Your task to perform on an android device: change notifications settings Image 0: 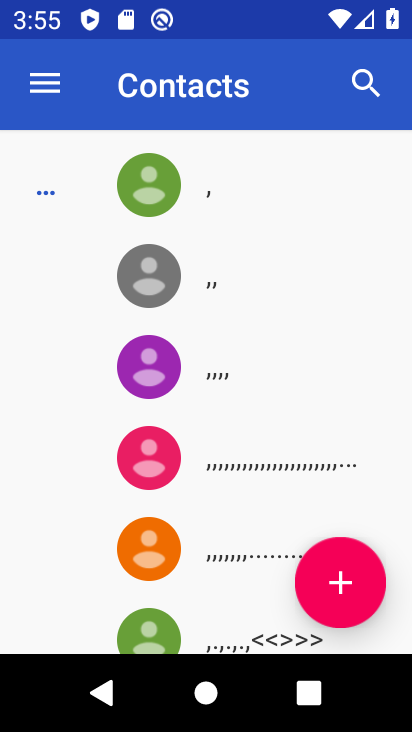
Step 0: press home button
Your task to perform on an android device: change notifications settings Image 1: 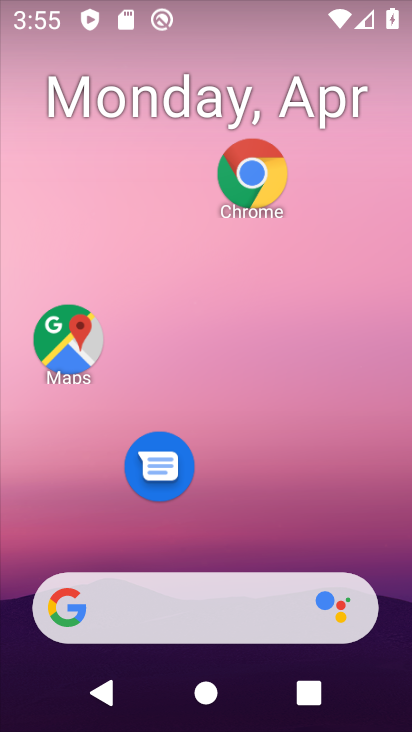
Step 1: drag from (397, 552) to (337, 63)
Your task to perform on an android device: change notifications settings Image 2: 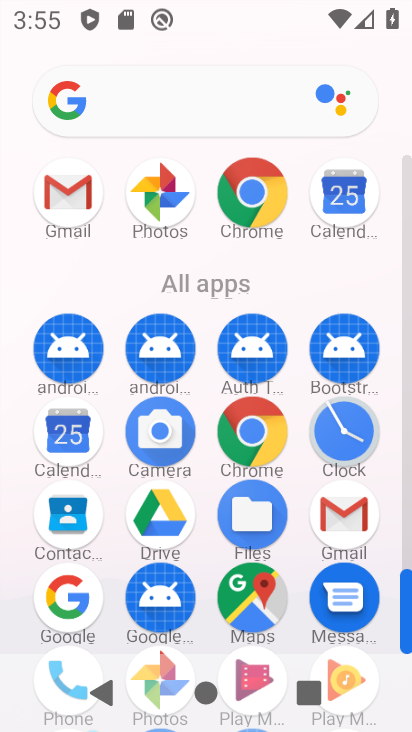
Step 2: drag from (389, 566) to (376, 398)
Your task to perform on an android device: change notifications settings Image 3: 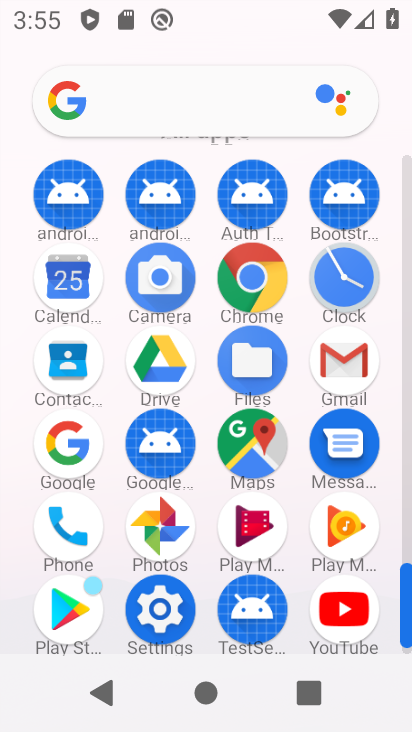
Step 3: click (172, 590)
Your task to perform on an android device: change notifications settings Image 4: 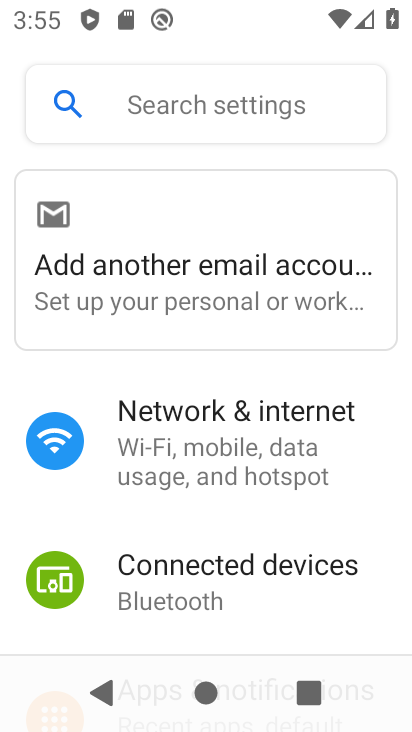
Step 4: drag from (328, 614) to (277, 302)
Your task to perform on an android device: change notifications settings Image 5: 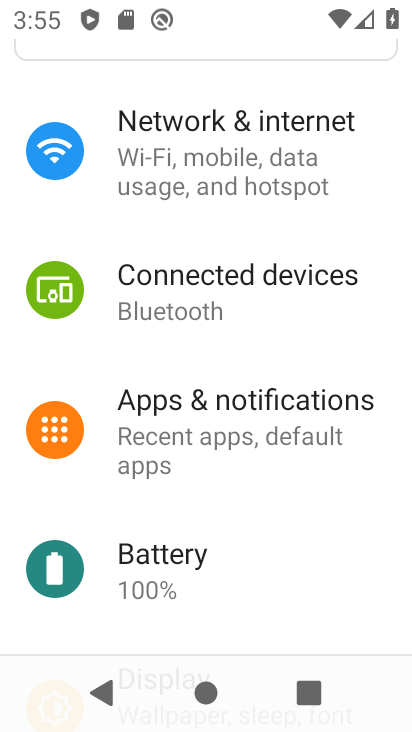
Step 5: click (297, 395)
Your task to perform on an android device: change notifications settings Image 6: 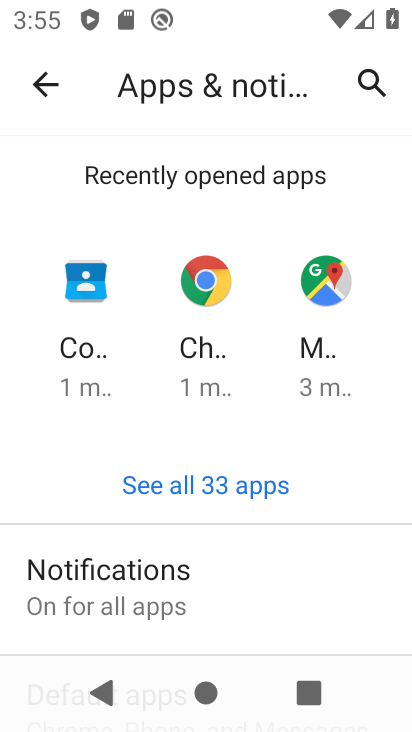
Step 6: click (289, 565)
Your task to perform on an android device: change notifications settings Image 7: 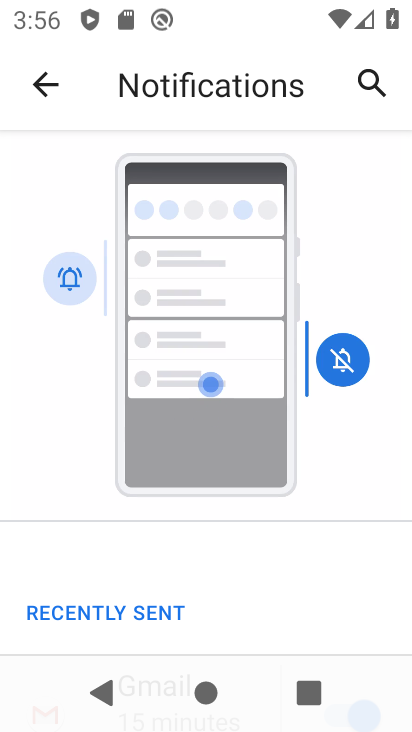
Step 7: drag from (289, 565) to (261, 27)
Your task to perform on an android device: change notifications settings Image 8: 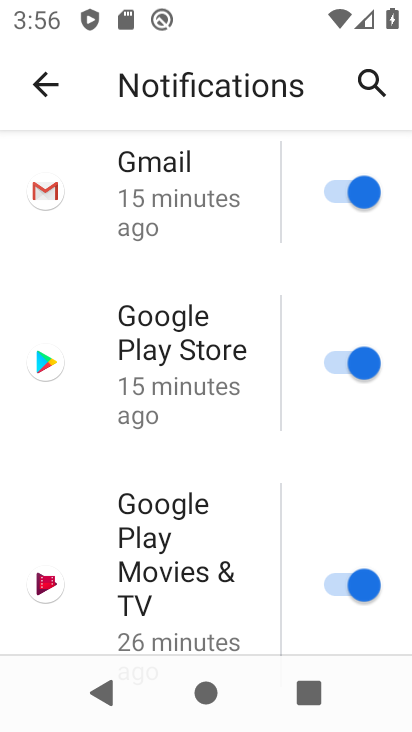
Step 8: drag from (248, 493) to (244, 119)
Your task to perform on an android device: change notifications settings Image 9: 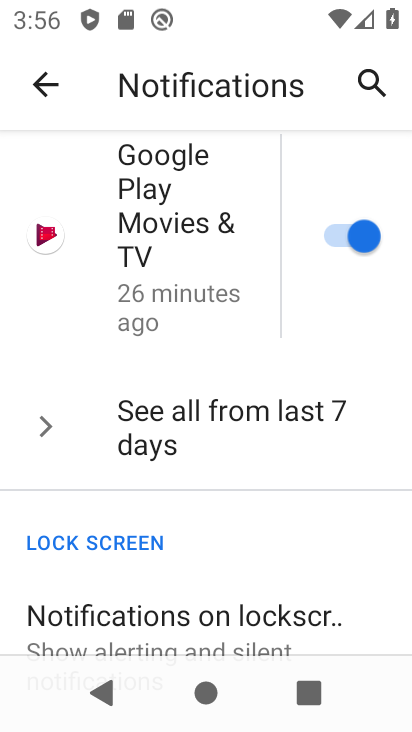
Step 9: drag from (290, 510) to (231, 127)
Your task to perform on an android device: change notifications settings Image 10: 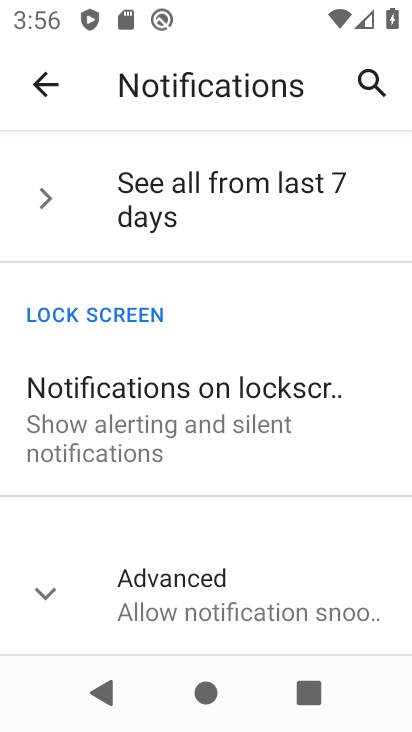
Step 10: click (269, 571)
Your task to perform on an android device: change notifications settings Image 11: 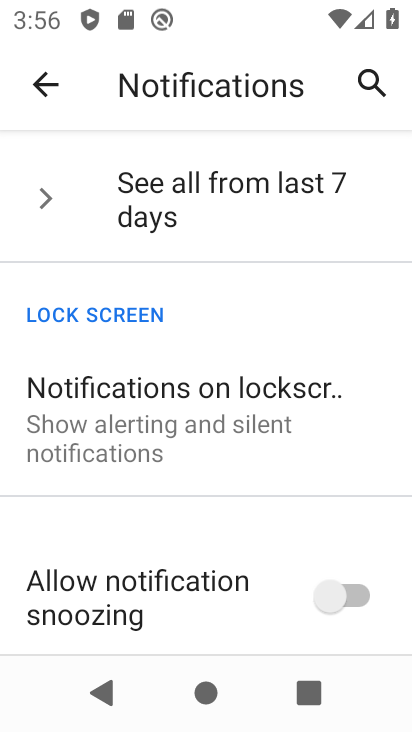
Step 11: drag from (269, 571) to (232, 260)
Your task to perform on an android device: change notifications settings Image 12: 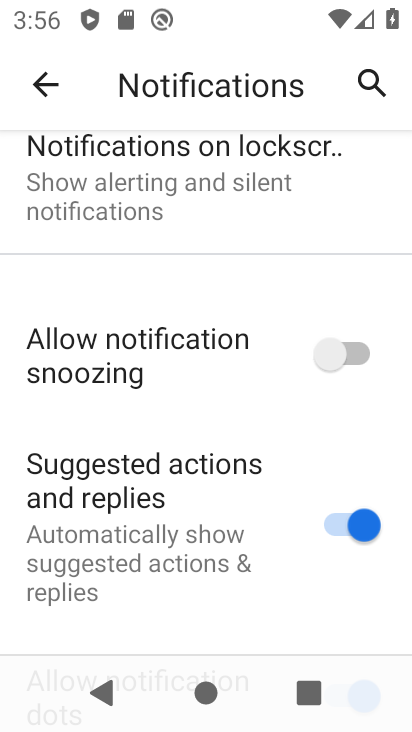
Step 12: click (335, 360)
Your task to perform on an android device: change notifications settings Image 13: 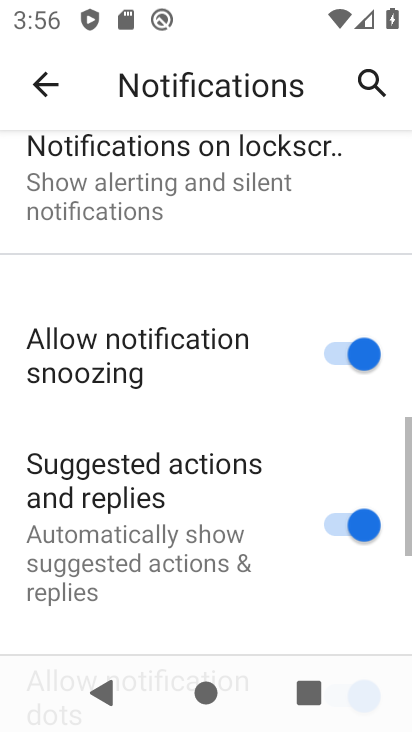
Step 13: click (346, 536)
Your task to perform on an android device: change notifications settings Image 14: 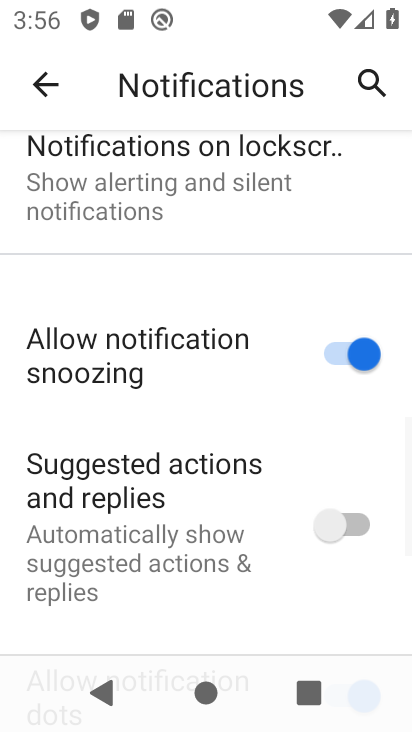
Step 14: drag from (285, 542) to (262, 245)
Your task to perform on an android device: change notifications settings Image 15: 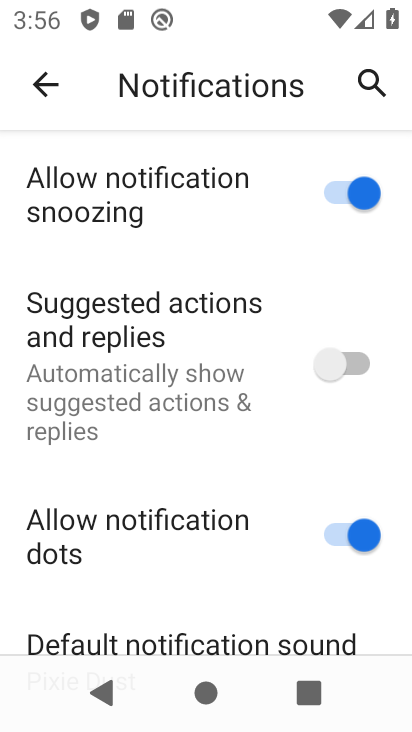
Step 15: click (356, 529)
Your task to perform on an android device: change notifications settings Image 16: 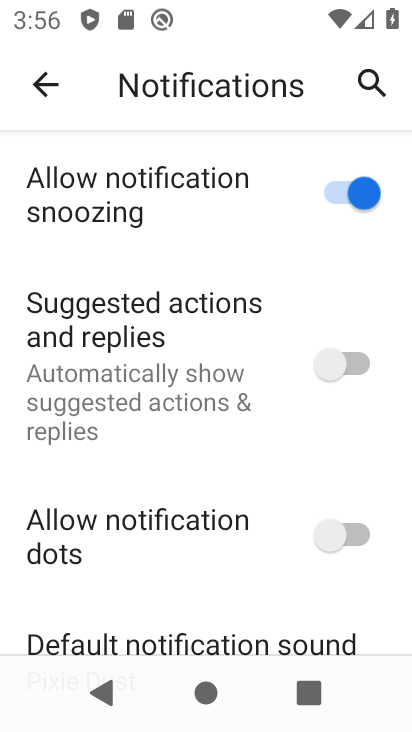
Step 16: task complete